Your task to perform on an android device: open app "DuckDuckGo Privacy Browser" (install if not already installed) and go to login screen Image 0: 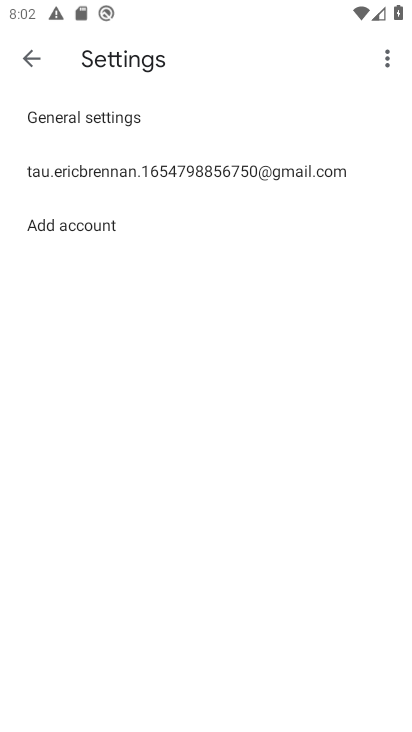
Step 0: press home button
Your task to perform on an android device: open app "DuckDuckGo Privacy Browser" (install if not already installed) and go to login screen Image 1: 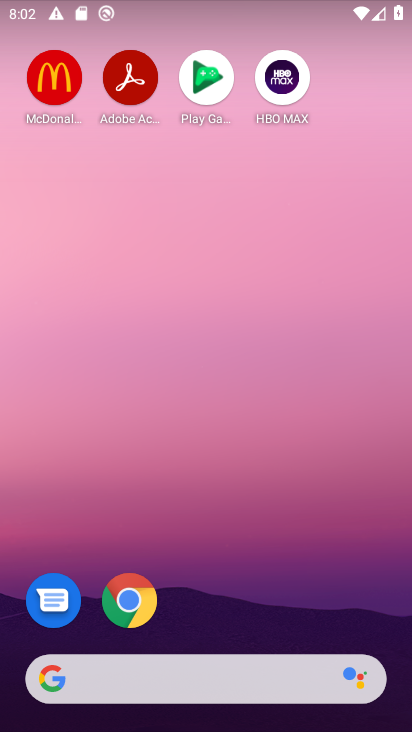
Step 1: drag from (213, 605) to (217, 145)
Your task to perform on an android device: open app "DuckDuckGo Privacy Browser" (install if not already installed) and go to login screen Image 2: 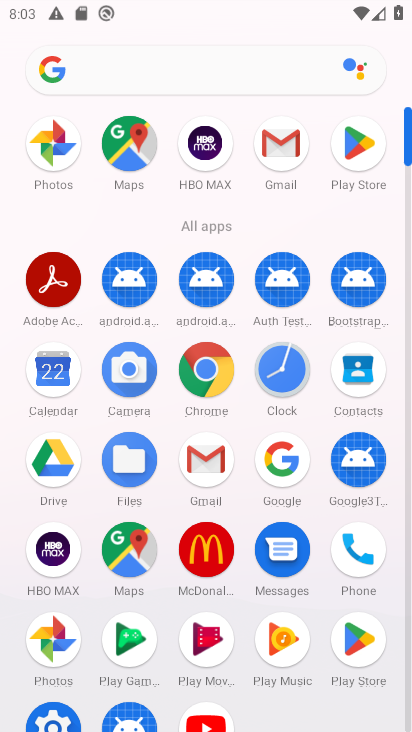
Step 2: click (354, 143)
Your task to perform on an android device: open app "DuckDuckGo Privacy Browser" (install if not already installed) and go to login screen Image 3: 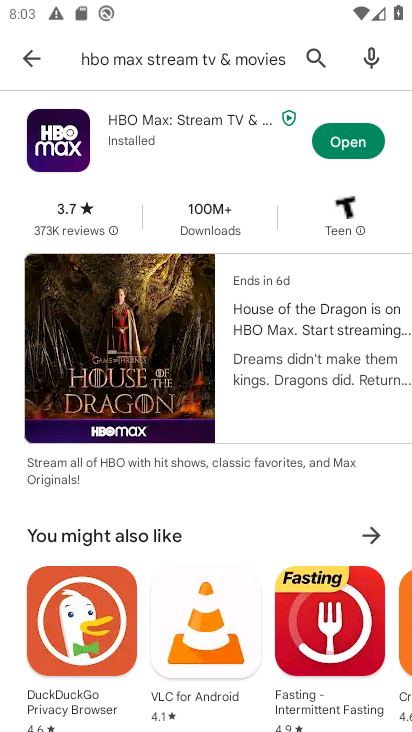
Step 3: drag from (317, 54) to (363, 54)
Your task to perform on an android device: open app "DuckDuckGo Privacy Browser" (install if not already installed) and go to login screen Image 4: 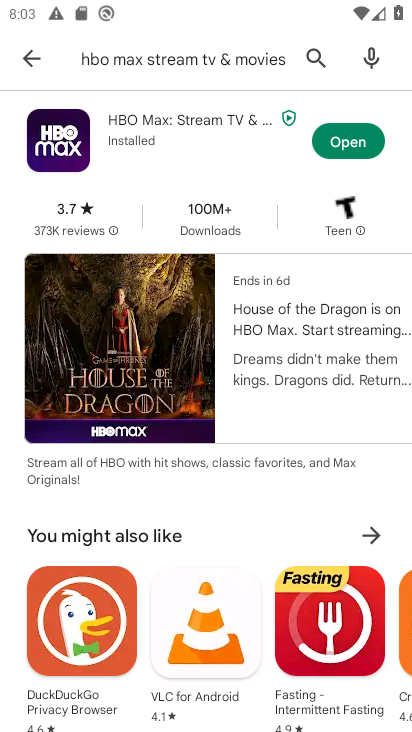
Step 4: click (308, 52)
Your task to perform on an android device: open app "DuckDuckGo Privacy Browser" (install if not already installed) and go to login screen Image 5: 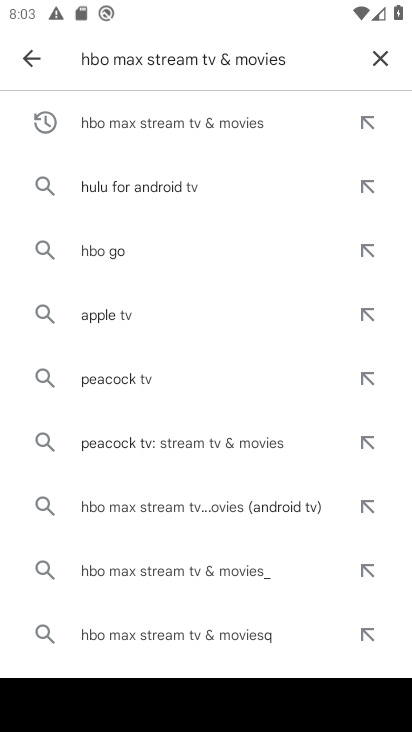
Step 5: click (384, 65)
Your task to perform on an android device: open app "DuckDuckGo Privacy Browser" (install if not already installed) and go to login screen Image 6: 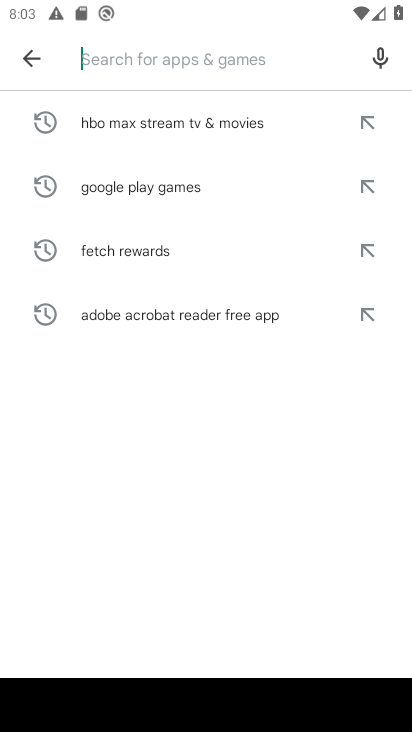
Step 6: type "DuckDuckGo Privacy Browser"
Your task to perform on an android device: open app "DuckDuckGo Privacy Browser" (install if not already installed) and go to login screen Image 7: 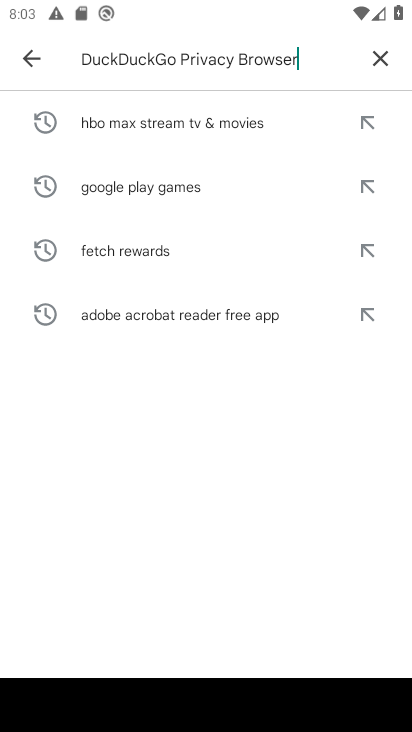
Step 7: type ""
Your task to perform on an android device: open app "DuckDuckGo Privacy Browser" (install if not already installed) and go to login screen Image 8: 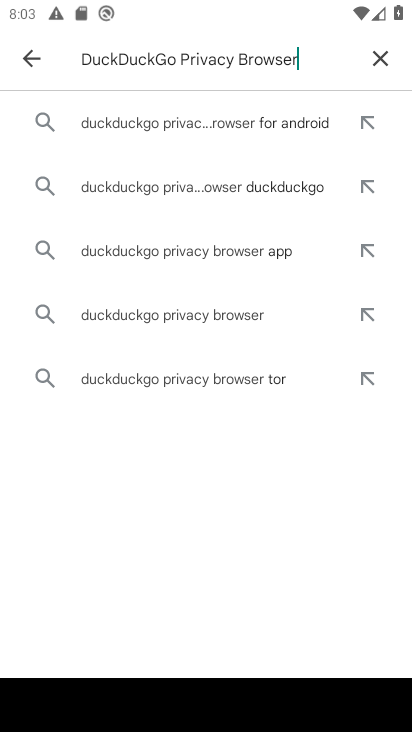
Step 8: click (152, 127)
Your task to perform on an android device: open app "DuckDuckGo Privacy Browser" (install if not already installed) and go to login screen Image 9: 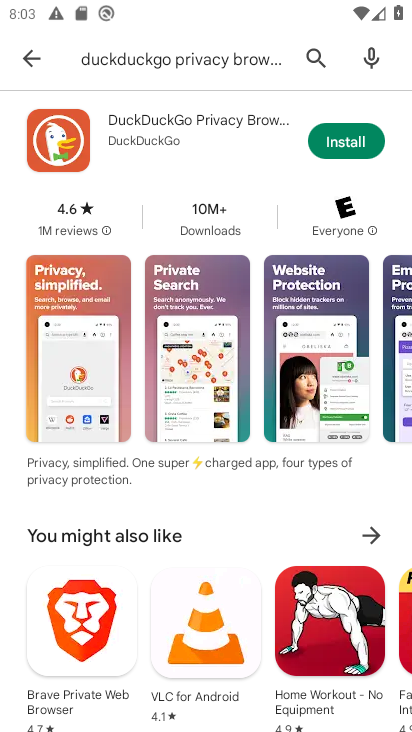
Step 9: click (340, 138)
Your task to perform on an android device: open app "DuckDuckGo Privacy Browser" (install if not already installed) and go to login screen Image 10: 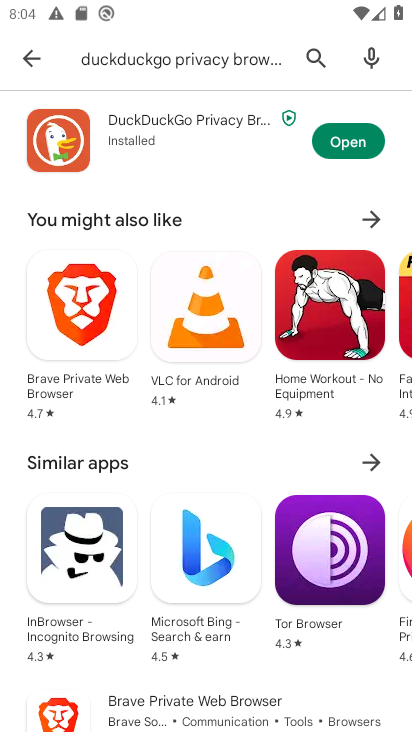
Step 10: click (352, 126)
Your task to perform on an android device: open app "DuckDuckGo Privacy Browser" (install if not already installed) and go to login screen Image 11: 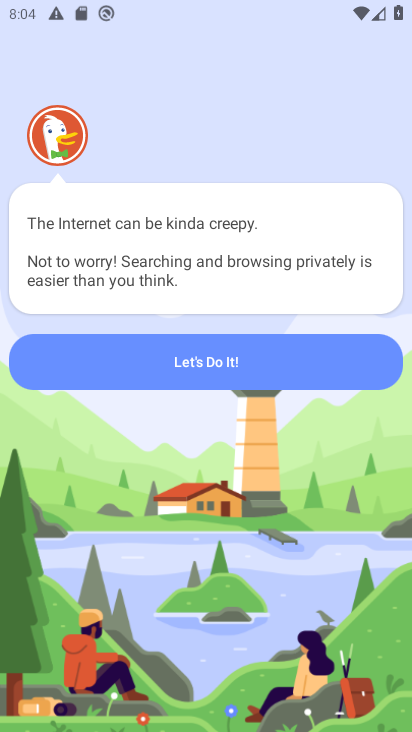
Step 11: task complete